Your task to perform on an android device: What's the weather today? Image 0: 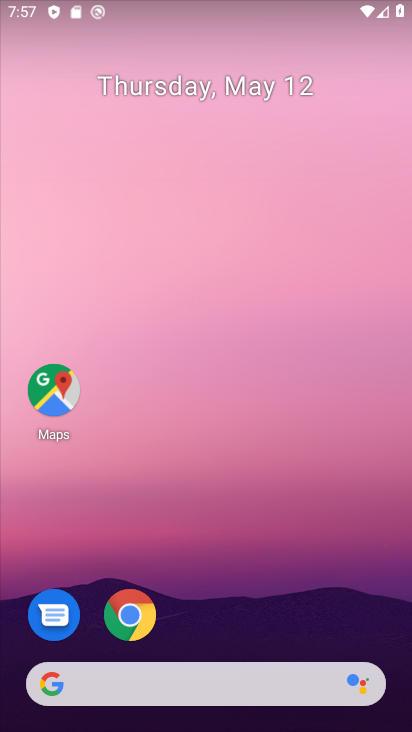
Step 0: drag from (252, 541) to (159, 35)
Your task to perform on an android device: What's the weather today? Image 1: 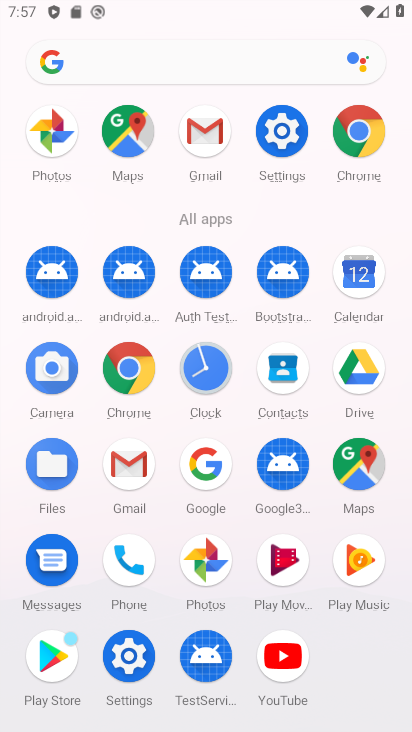
Step 1: drag from (3, 497) to (19, 283)
Your task to perform on an android device: What's the weather today? Image 2: 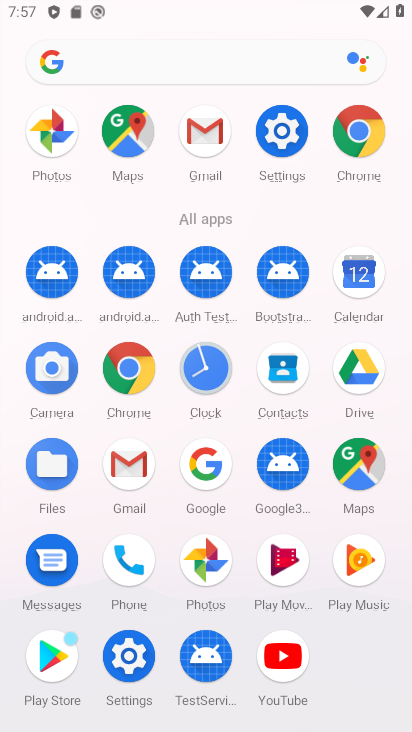
Step 2: click (130, 364)
Your task to perform on an android device: What's the weather today? Image 3: 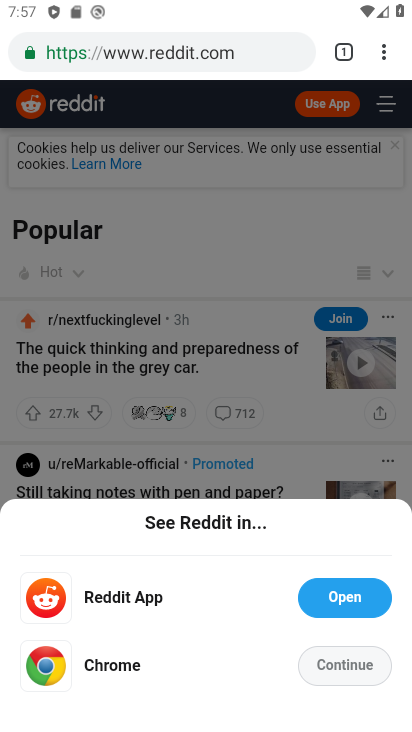
Step 3: click (140, 58)
Your task to perform on an android device: What's the weather today? Image 4: 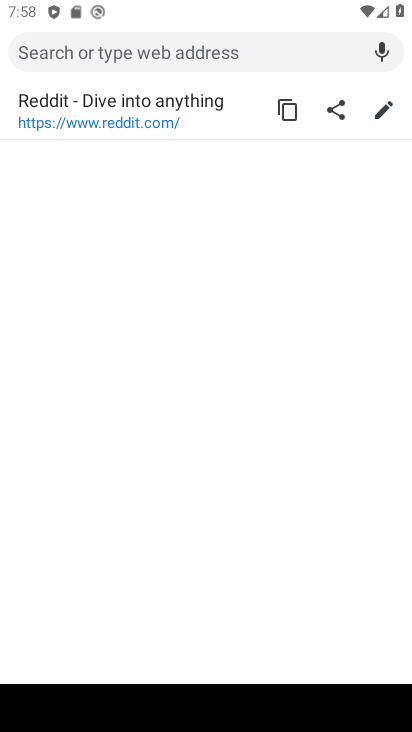
Step 4: type "What's the weather today?"
Your task to perform on an android device: What's the weather today? Image 5: 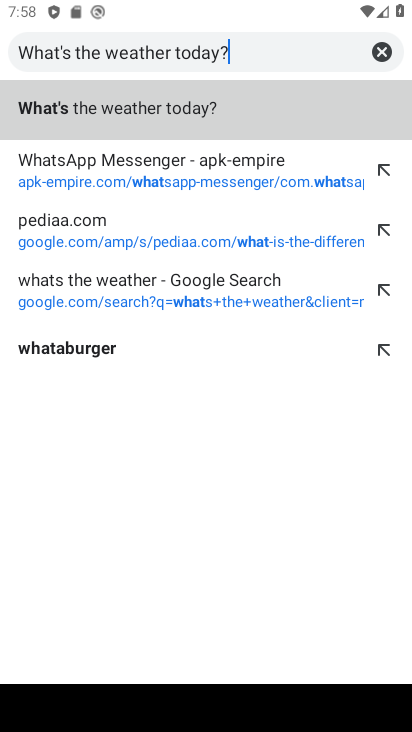
Step 5: type ""
Your task to perform on an android device: What's the weather today? Image 6: 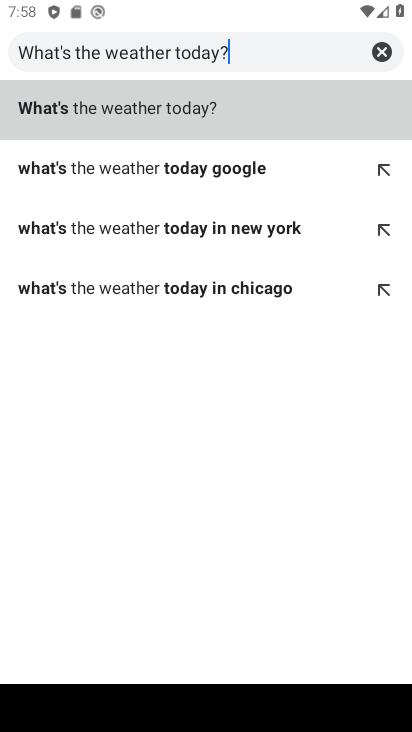
Step 6: click (185, 112)
Your task to perform on an android device: What's the weather today? Image 7: 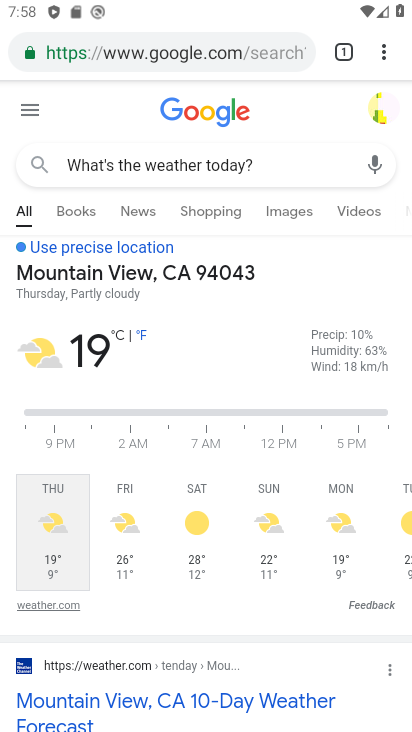
Step 7: task complete